Your task to perform on an android device: Open network settings Image 0: 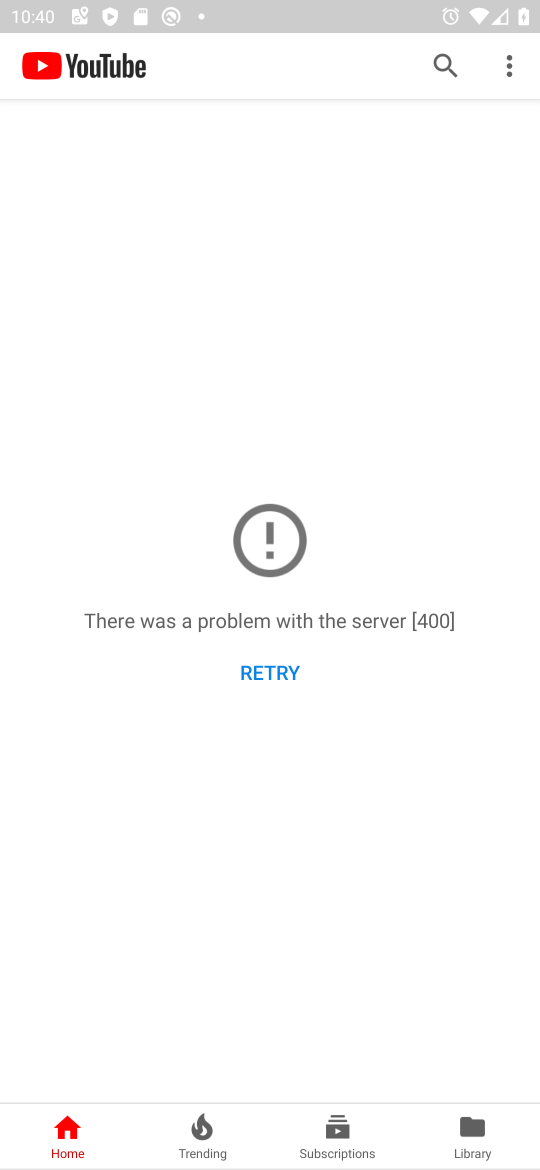
Step 0: press home button
Your task to perform on an android device: Open network settings Image 1: 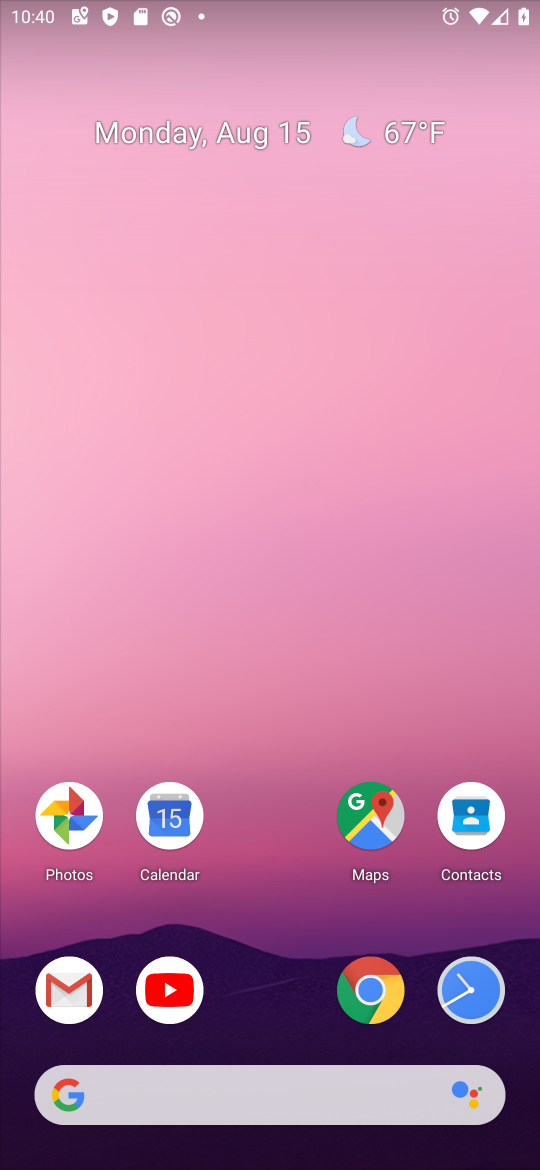
Step 1: drag from (278, 980) to (253, 162)
Your task to perform on an android device: Open network settings Image 2: 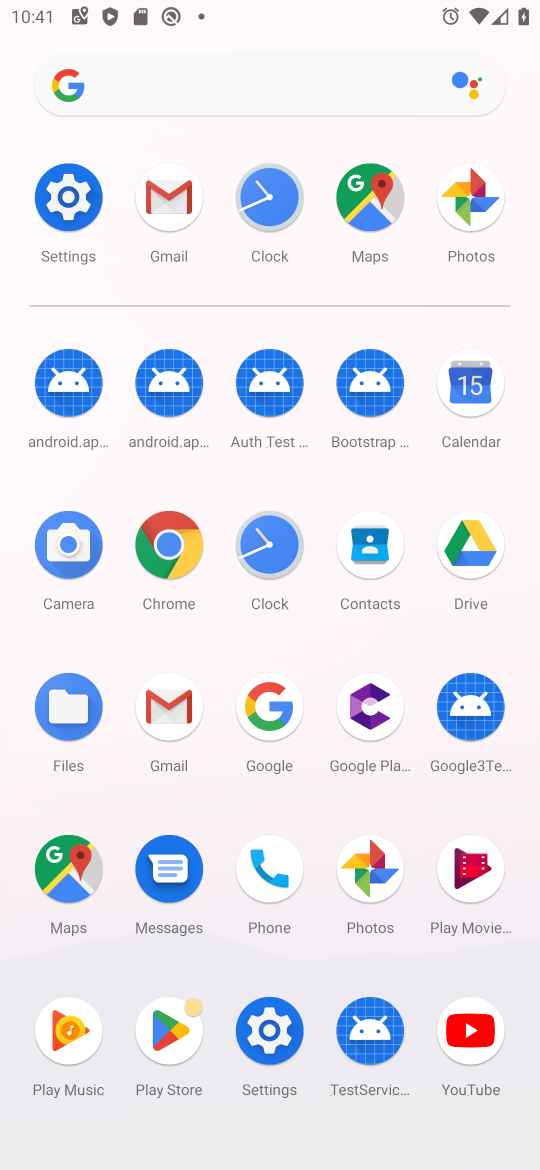
Step 2: click (67, 195)
Your task to perform on an android device: Open network settings Image 3: 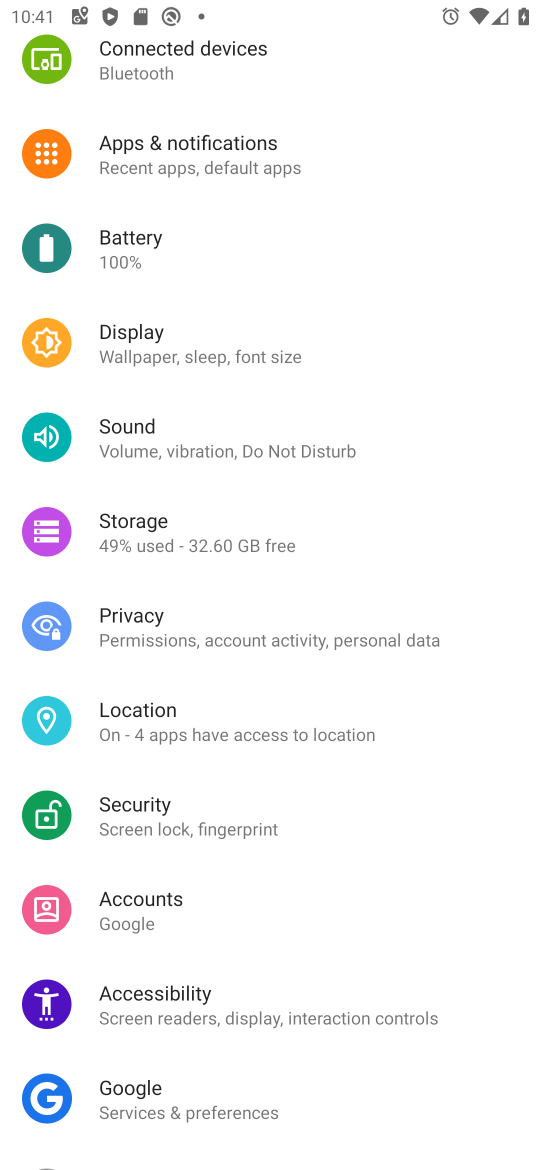
Step 3: drag from (318, 205) to (242, 562)
Your task to perform on an android device: Open network settings Image 4: 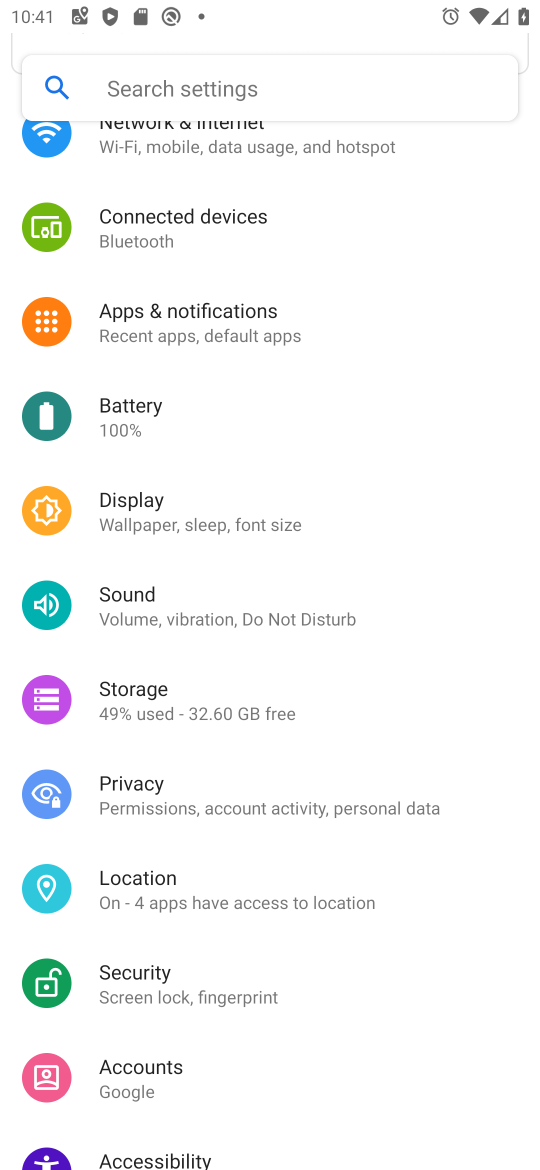
Step 4: drag from (299, 438) to (246, 840)
Your task to perform on an android device: Open network settings Image 5: 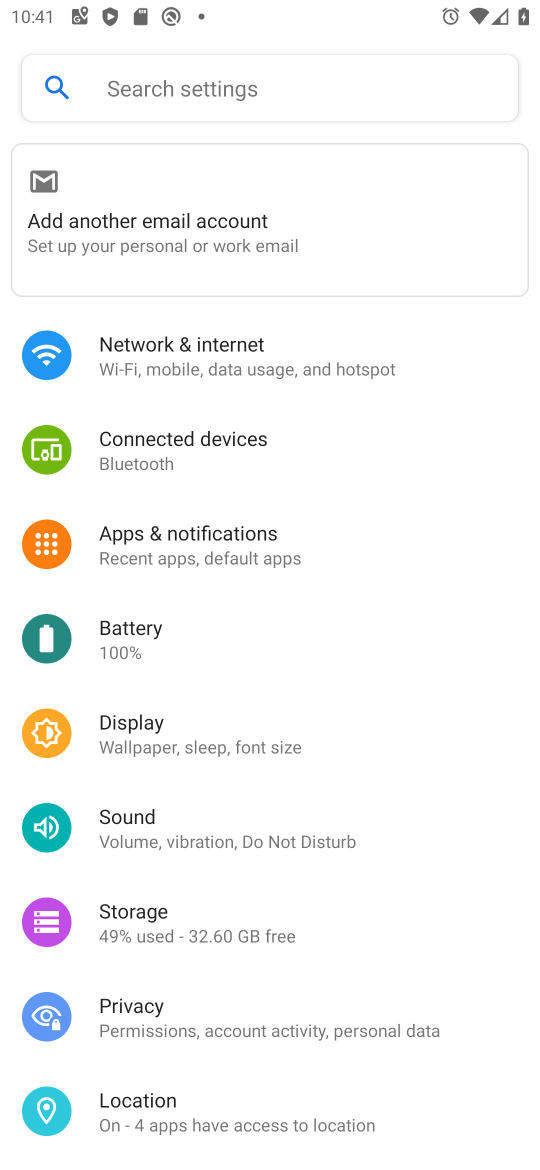
Step 5: click (181, 333)
Your task to perform on an android device: Open network settings Image 6: 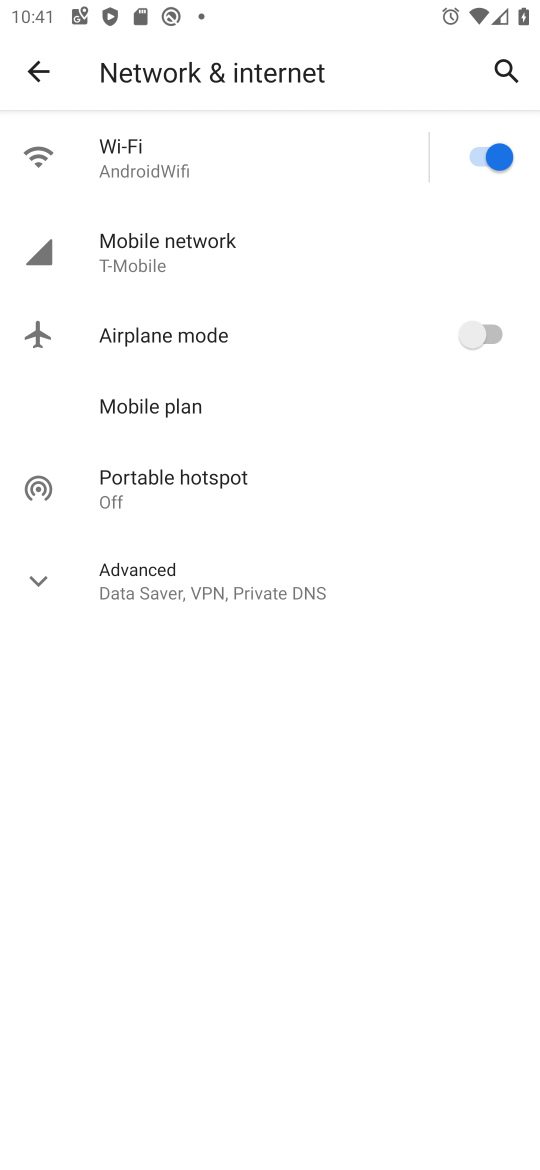
Step 6: task complete